Your task to perform on an android device: open chrome and create a bookmark for the current page Image 0: 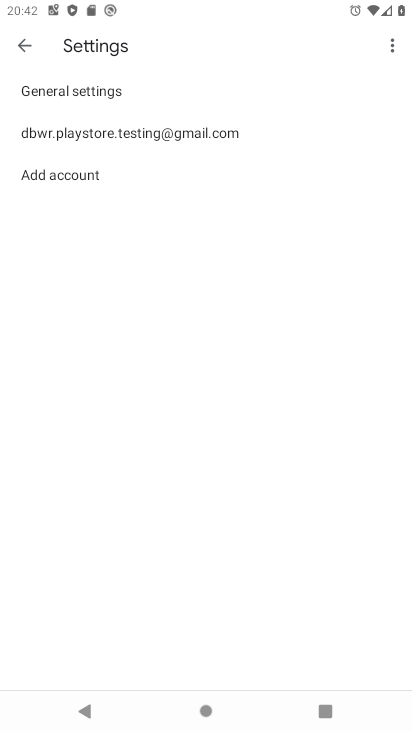
Step 0: press home button
Your task to perform on an android device: open chrome and create a bookmark for the current page Image 1: 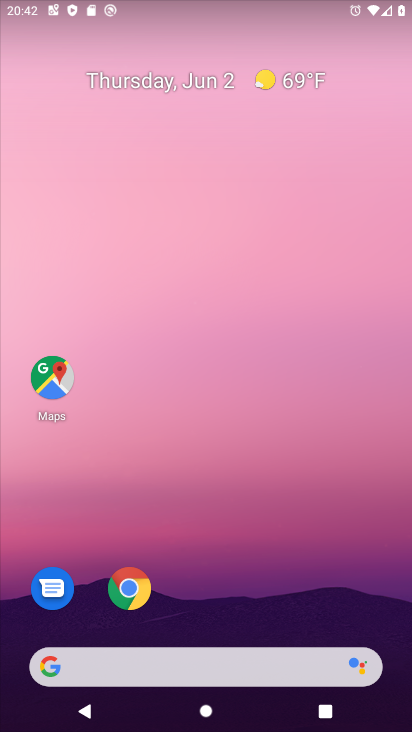
Step 1: click (130, 583)
Your task to perform on an android device: open chrome and create a bookmark for the current page Image 2: 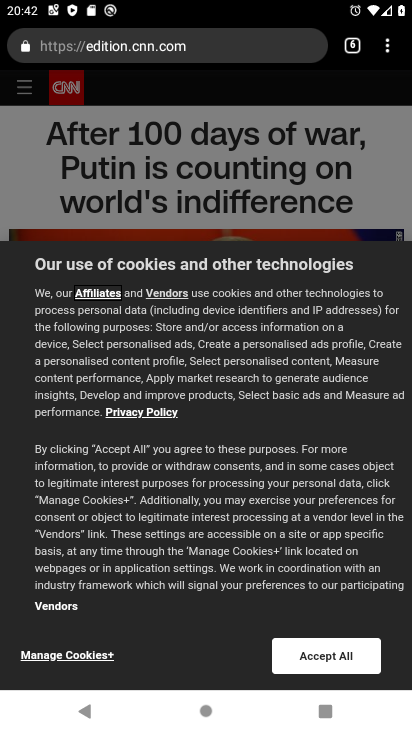
Step 2: click (389, 53)
Your task to perform on an android device: open chrome and create a bookmark for the current page Image 3: 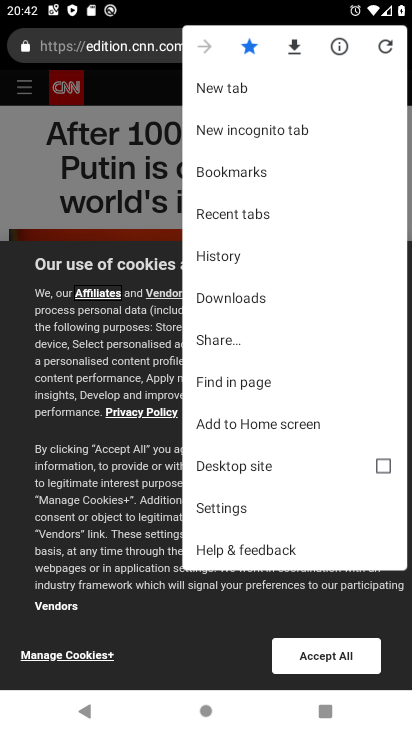
Step 3: task complete